Your task to perform on an android device: toggle location history Image 0: 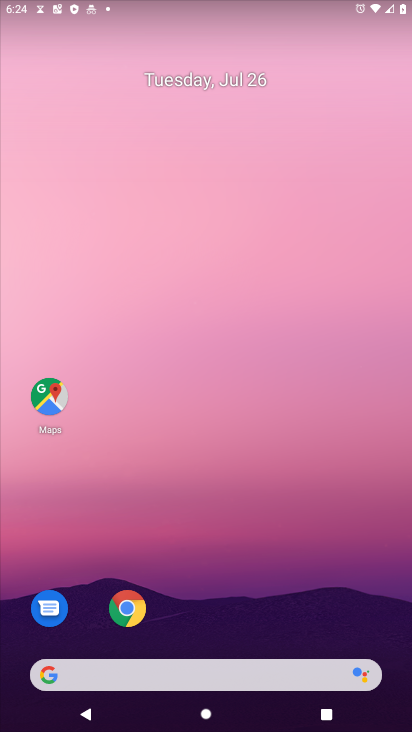
Step 0: press home button
Your task to perform on an android device: toggle location history Image 1: 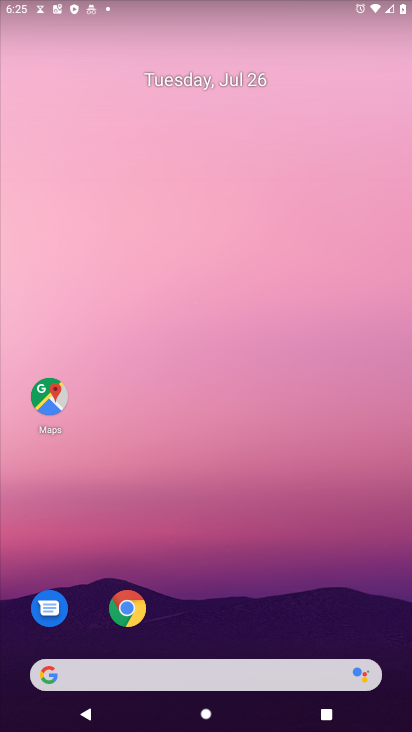
Step 1: drag from (190, 627) to (138, 65)
Your task to perform on an android device: toggle location history Image 2: 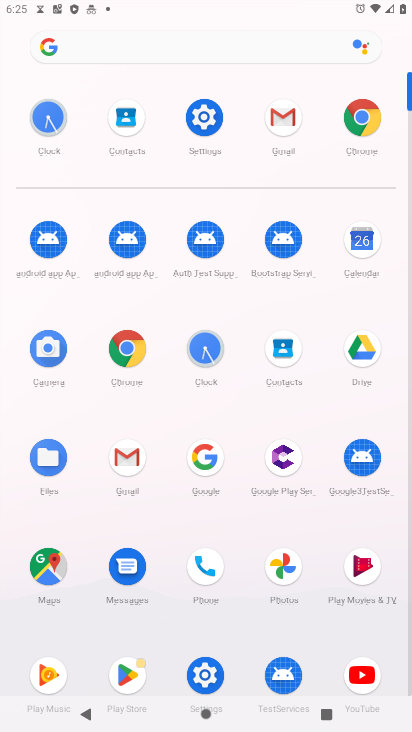
Step 2: click (198, 120)
Your task to perform on an android device: toggle location history Image 3: 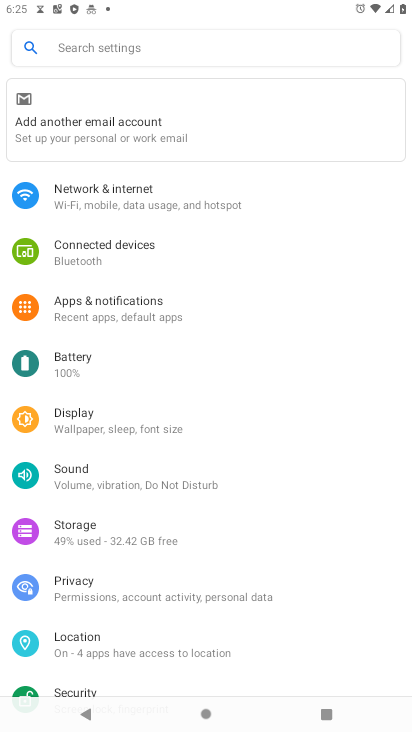
Step 3: click (125, 646)
Your task to perform on an android device: toggle location history Image 4: 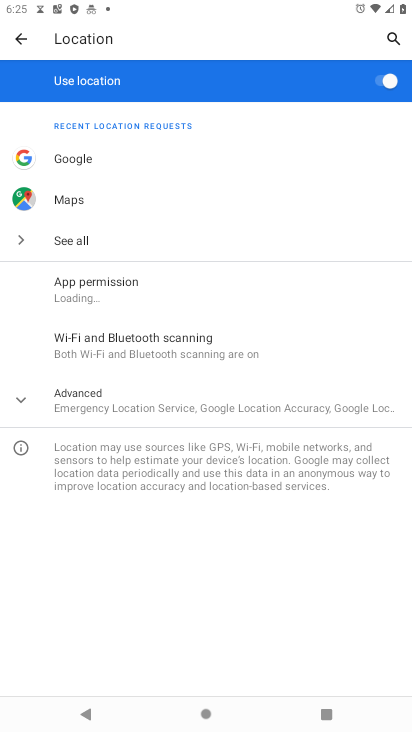
Step 4: click (95, 399)
Your task to perform on an android device: toggle location history Image 5: 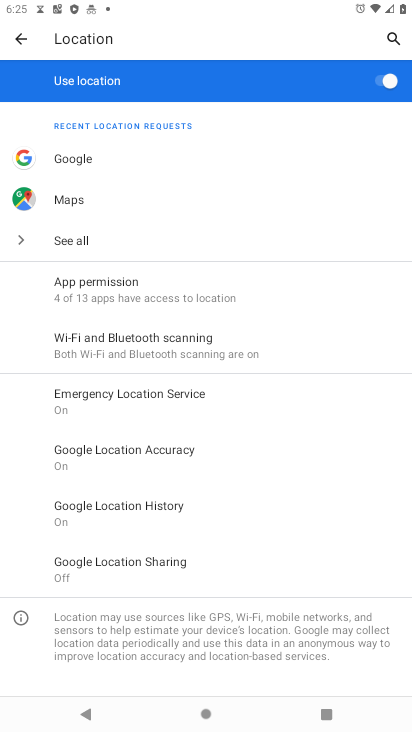
Step 5: click (127, 505)
Your task to perform on an android device: toggle location history Image 6: 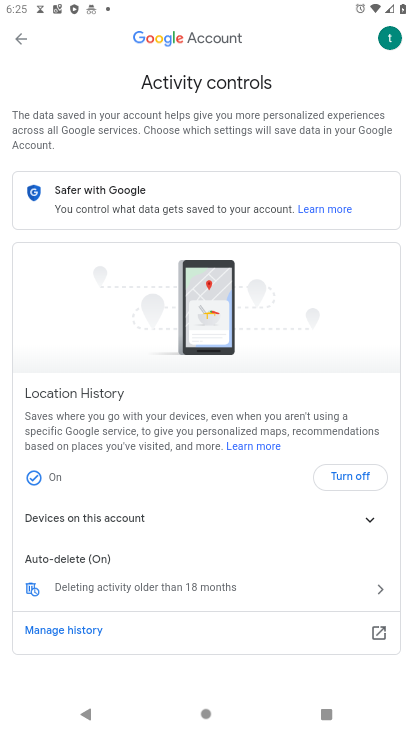
Step 6: click (356, 480)
Your task to perform on an android device: toggle location history Image 7: 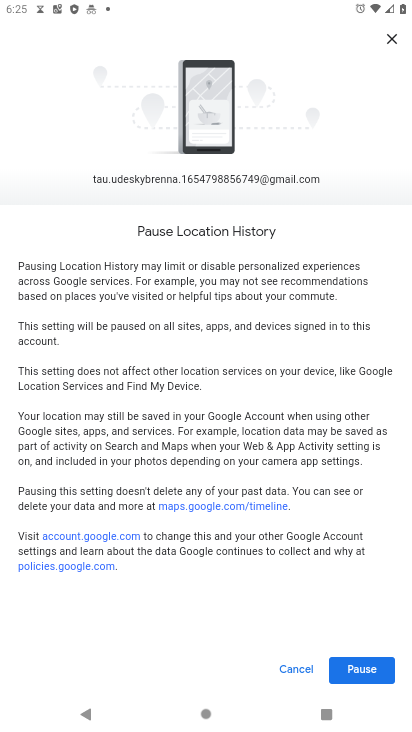
Step 7: click (342, 659)
Your task to perform on an android device: toggle location history Image 8: 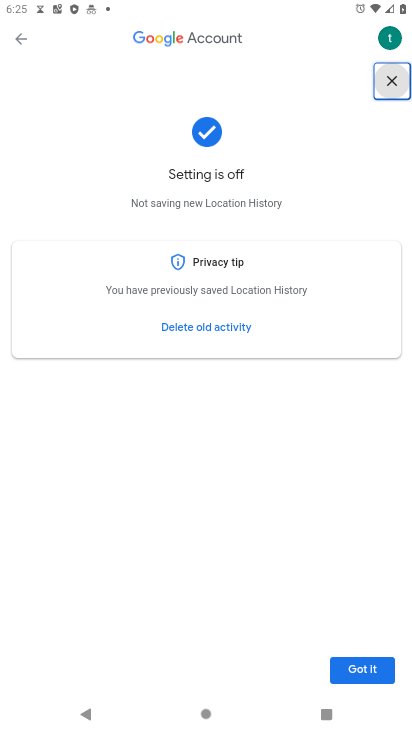
Step 8: click (348, 672)
Your task to perform on an android device: toggle location history Image 9: 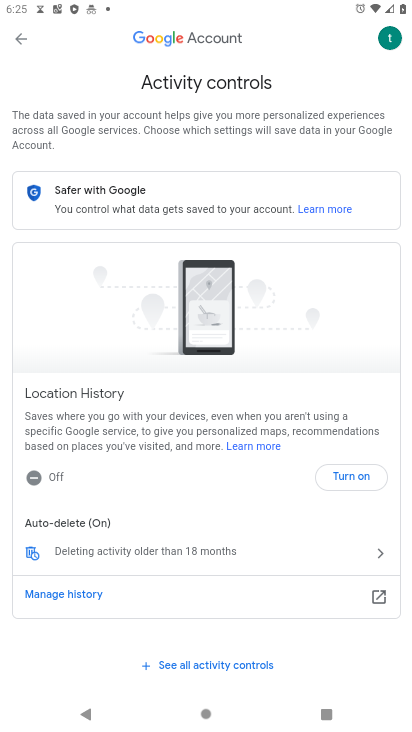
Step 9: task complete